Your task to perform on an android device: Show me productivity apps on the Play Store Image 0: 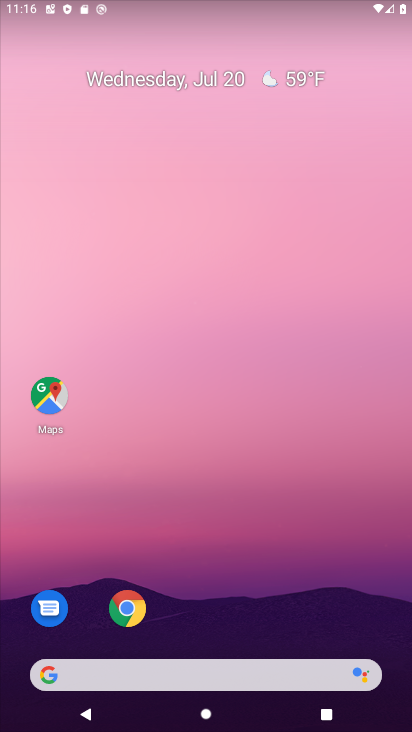
Step 0: drag from (363, 575) to (346, 81)
Your task to perform on an android device: Show me productivity apps on the Play Store Image 1: 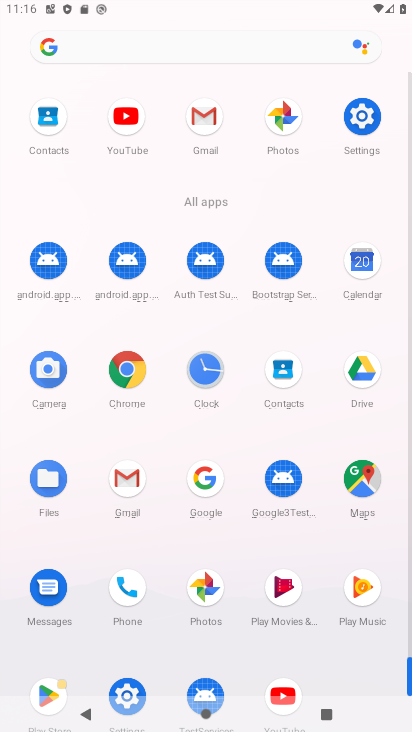
Step 1: drag from (354, 662) to (390, 308)
Your task to perform on an android device: Show me productivity apps on the Play Store Image 2: 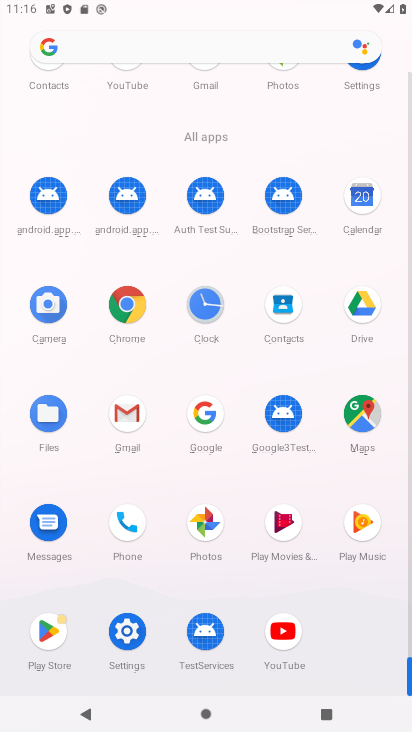
Step 2: click (47, 634)
Your task to perform on an android device: Show me productivity apps on the Play Store Image 3: 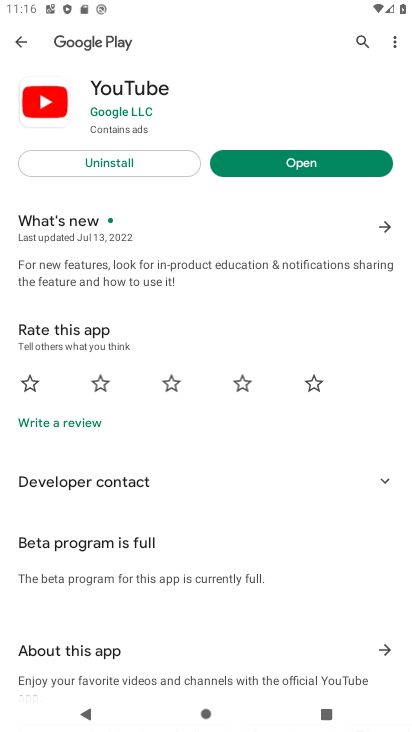
Step 3: press back button
Your task to perform on an android device: Show me productivity apps on the Play Store Image 4: 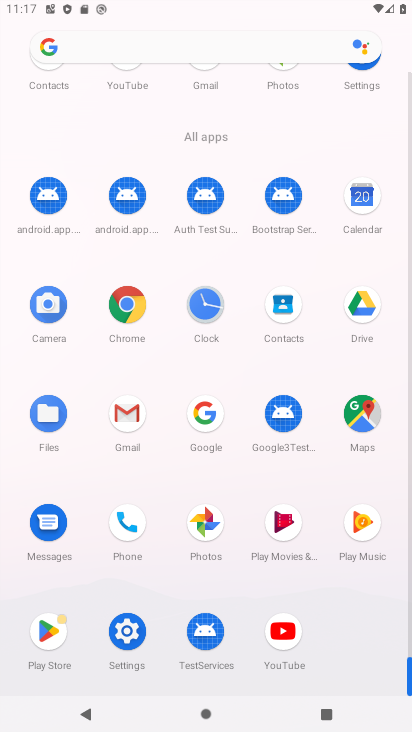
Step 4: click (51, 630)
Your task to perform on an android device: Show me productivity apps on the Play Store Image 5: 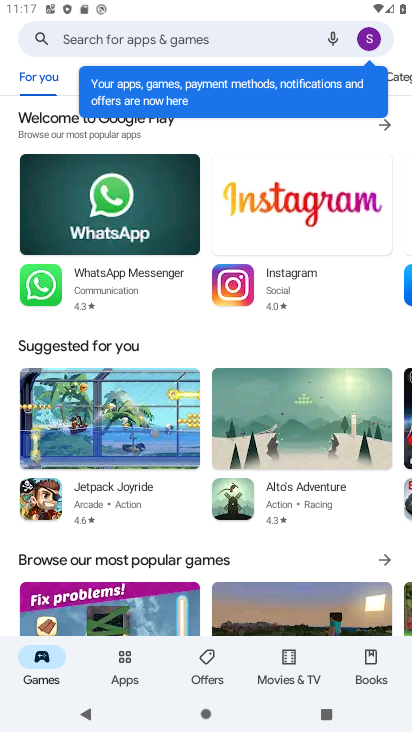
Step 5: click (127, 666)
Your task to perform on an android device: Show me productivity apps on the Play Store Image 6: 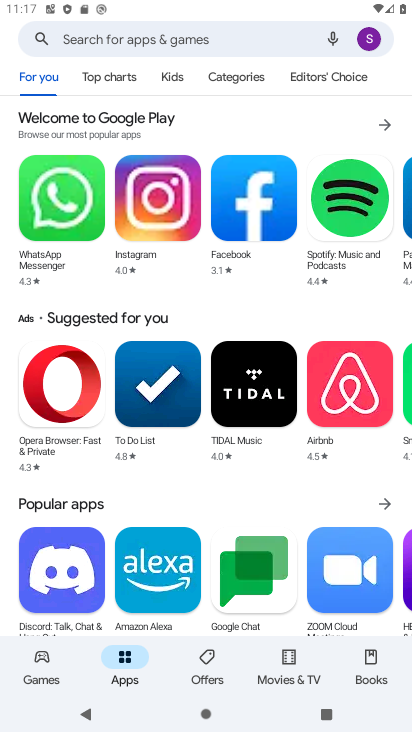
Step 6: task complete